Your task to perform on an android device: Show me the alarms in the clock app Image 0: 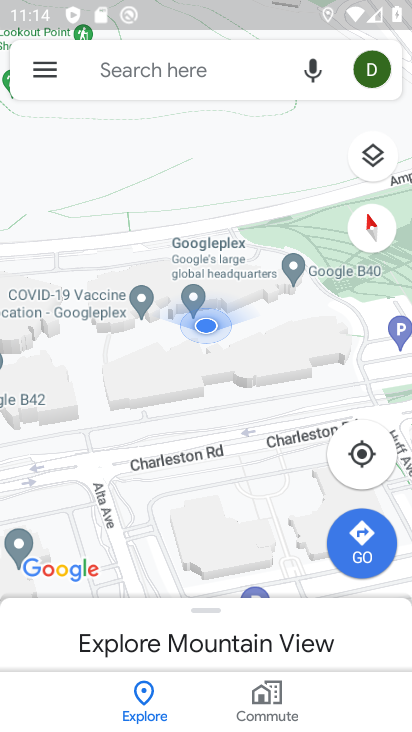
Step 0: press home button
Your task to perform on an android device: Show me the alarms in the clock app Image 1: 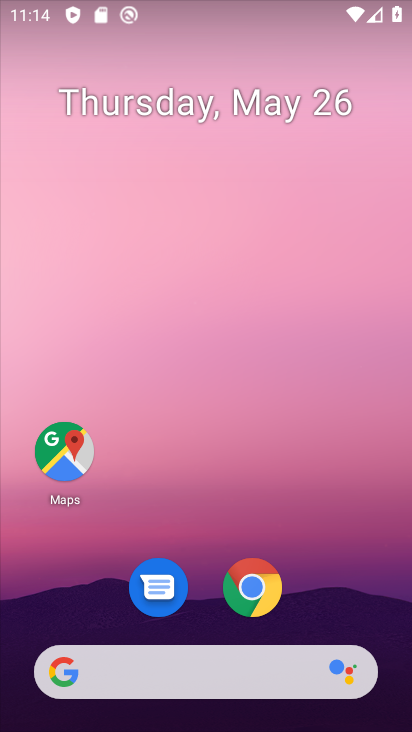
Step 1: drag from (182, 680) to (202, 100)
Your task to perform on an android device: Show me the alarms in the clock app Image 2: 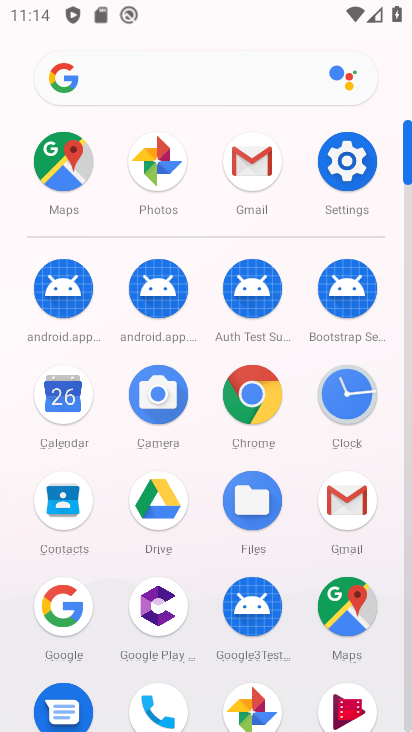
Step 2: click (333, 404)
Your task to perform on an android device: Show me the alarms in the clock app Image 3: 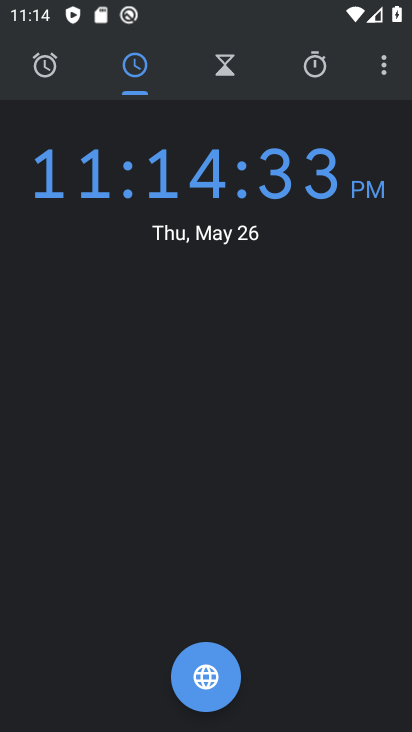
Step 3: click (366, 68)
Your task to perform on an android device: Show me the alarms in the clock app Image 4: 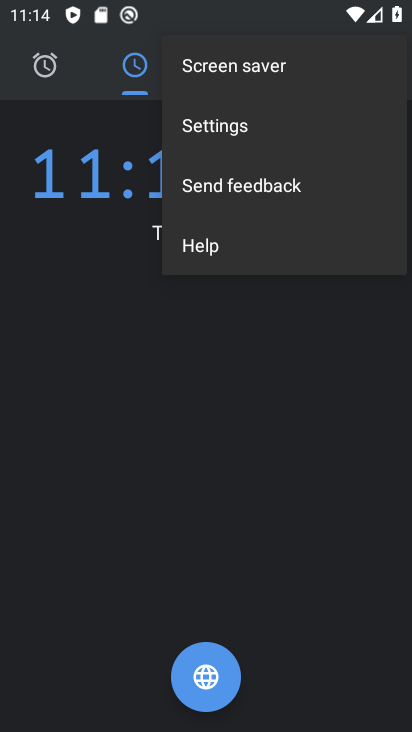
Step 4: click (145, 442)
Your task to perform on an android device: Show me the alarms in the clock app Image 5: 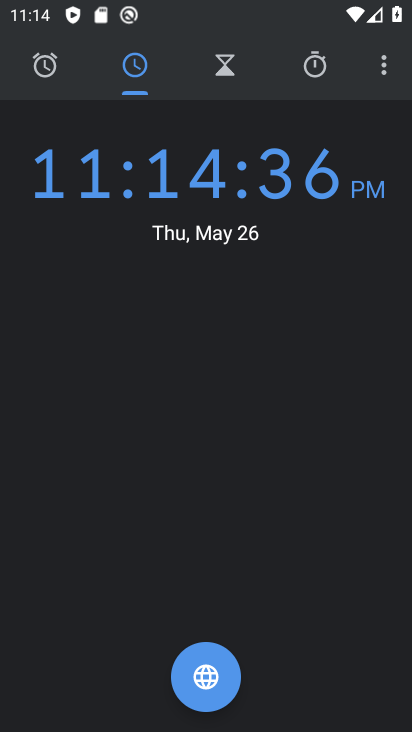
Step 5: click (54, 93)
Your task to perform on an android device: Show me the alarms in the clock app Image 6: 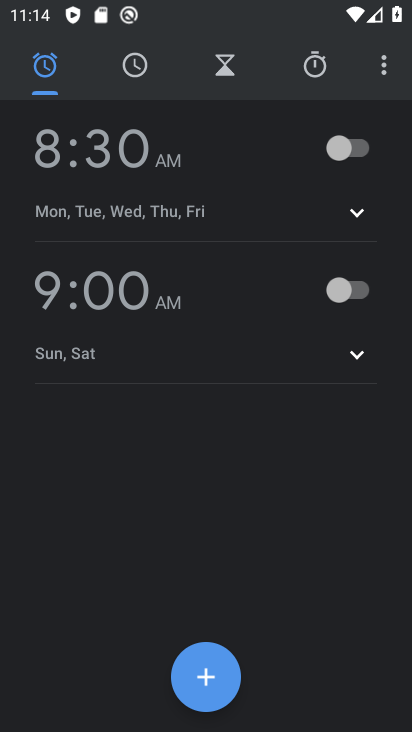
Step 6: click (354, 150)
Your task to perform on an android device: Show me the alarms in the clock app Image 7: 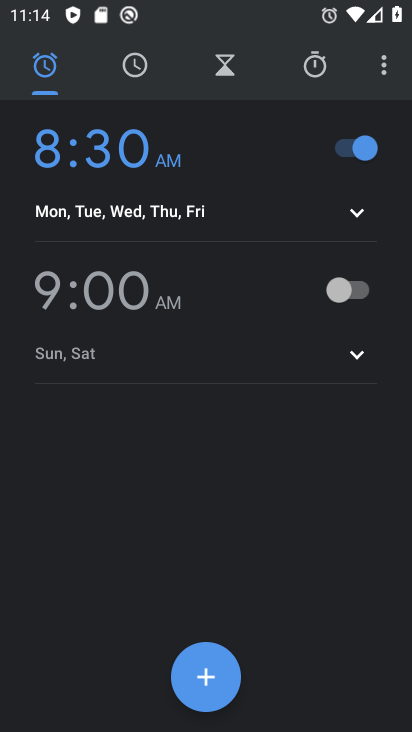
Step 7: task complete